Your task to perform on an android device: open a bookmark in the chrome app Image 0: 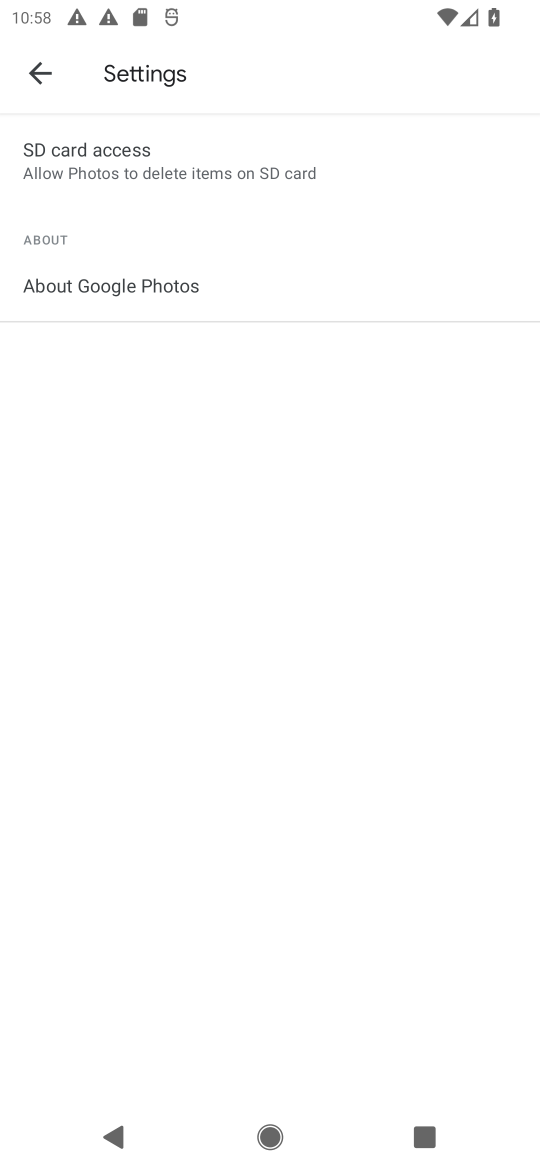
Step 0: press home button
Your task to perform on an android device: open a bookmark in the chrome app Image 1: 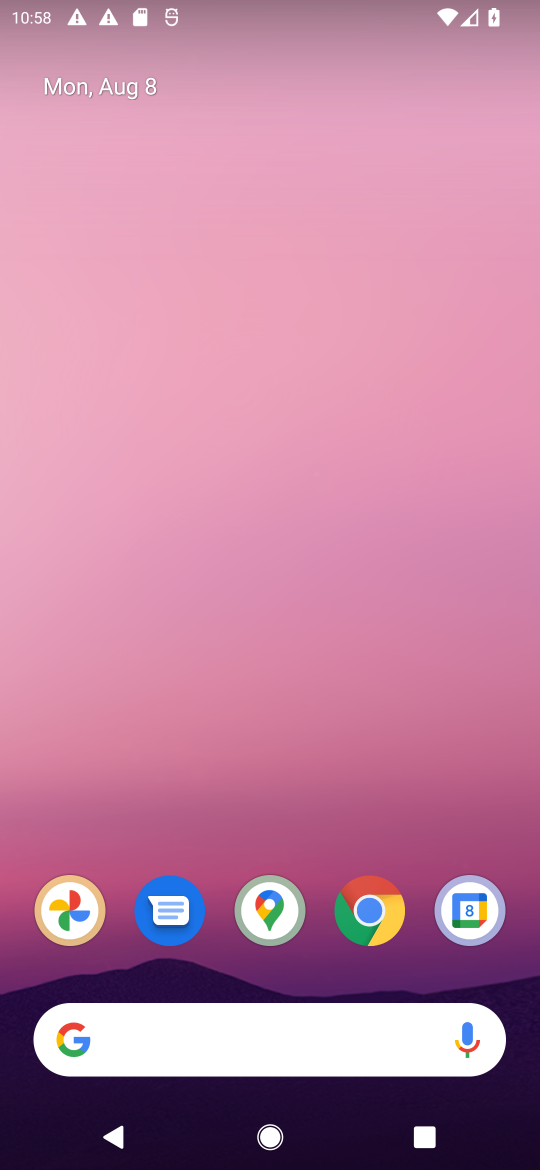
Step 1: click (379, 909)
Your task to perform on an android device: open a bookmark in the chrome app Image 2: 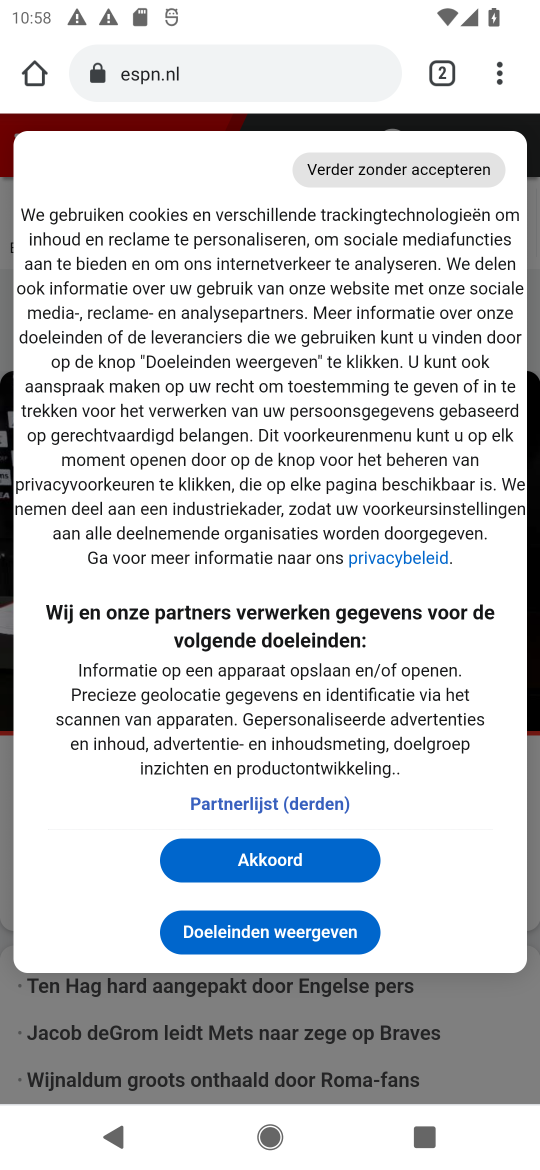
Step 2: click (275, 868)
Your task to perform on an android device: open a bookmark in the chrome app Image 3: 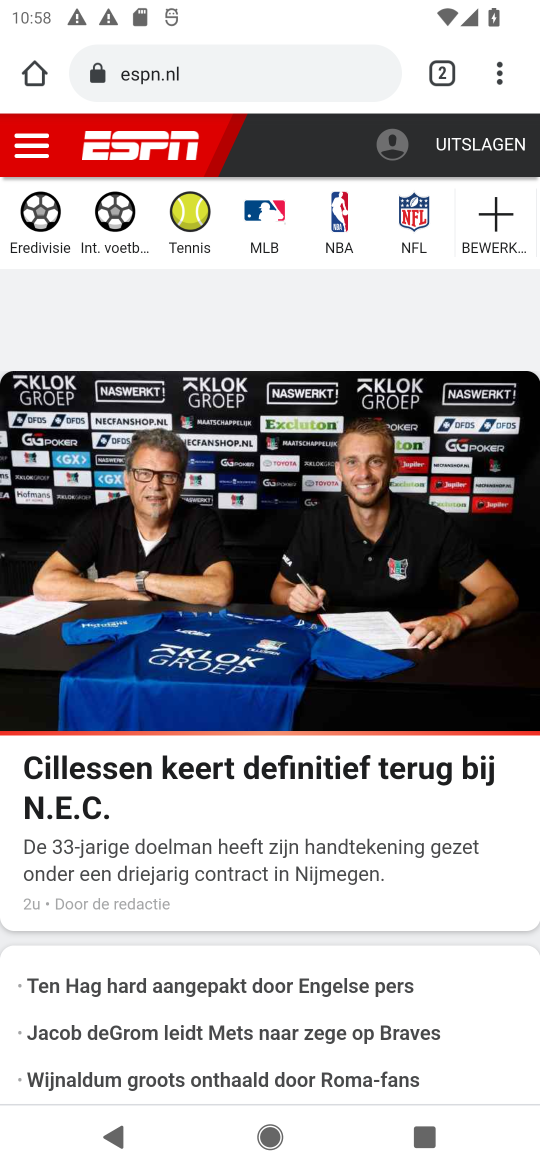
Step 3: click (496, 73)
Your task to perform on an android device: open a bookmark in the chrome app Image 4: 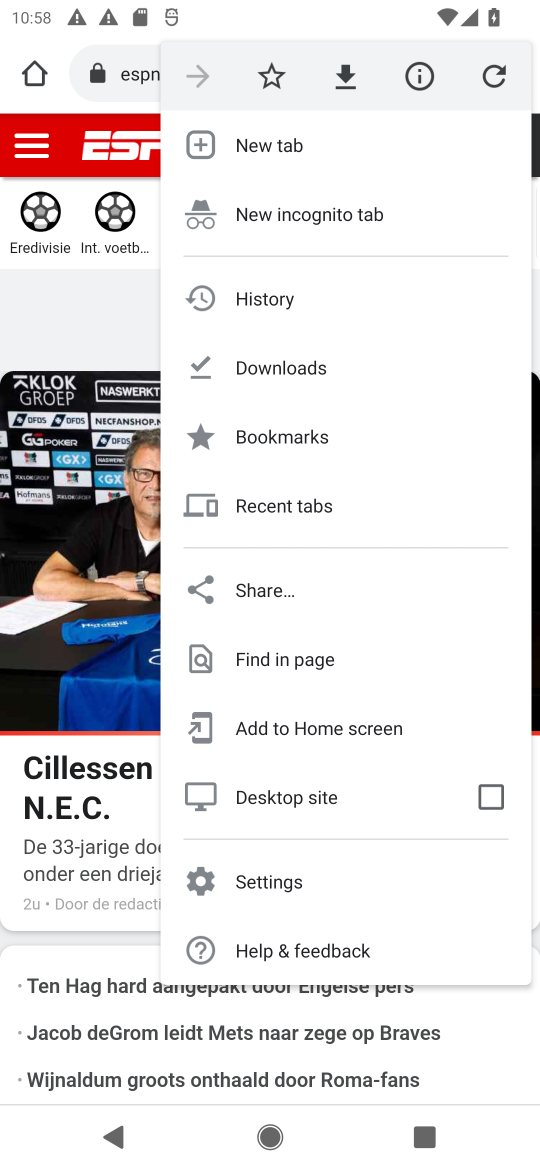
Step 4: click (303, 430)
Your task to perform on an android device: open a bookmark in the chrome app Image 5: 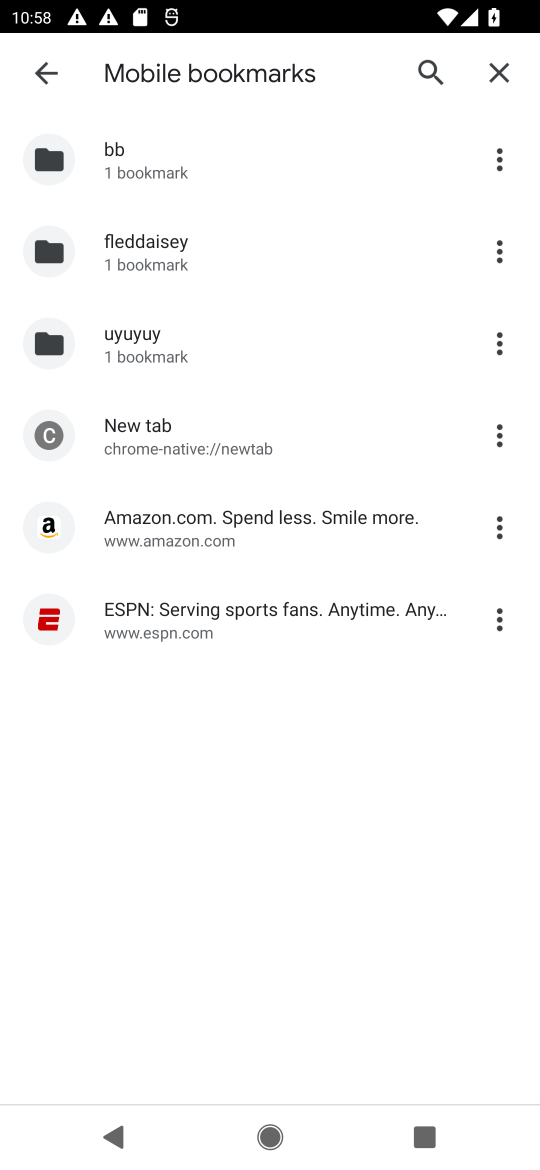
Step 5: task complete